Your task to perform on an android device: turn on location history Image 0: 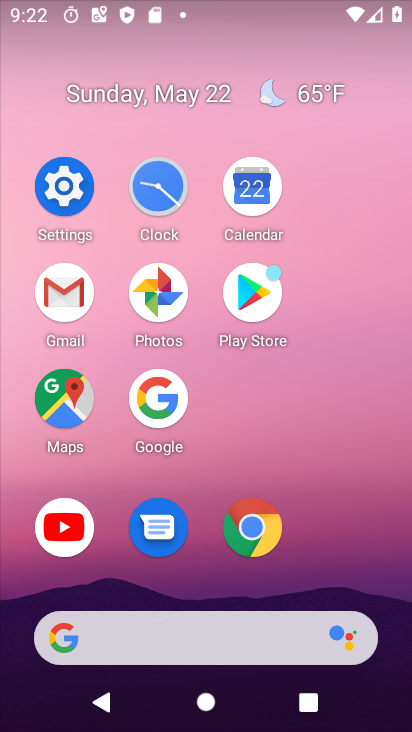
Step 0: click (64, 198)
Your task to perform on an android device: turn on location history Image 1: 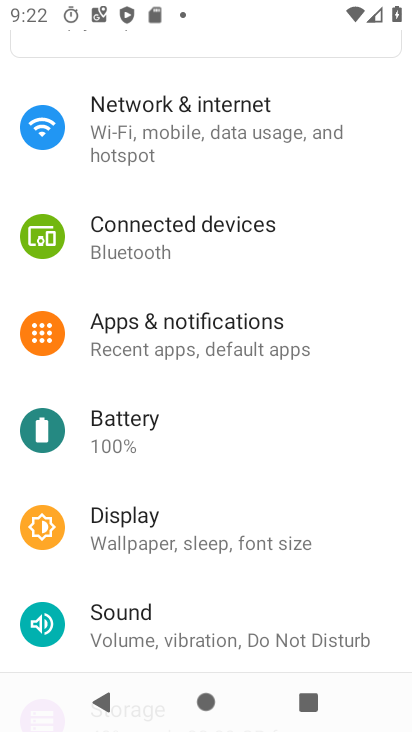
Step 1: drag from (321, 580) to (304, 220)
Your task to perform on an android device: turn on location history Image 2: 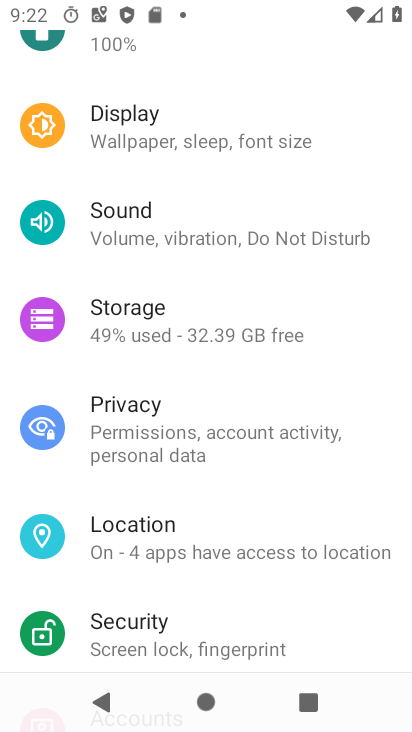
Step 2: click (293, 557)
Your task to perform on an android device: turn on location history Image 3: 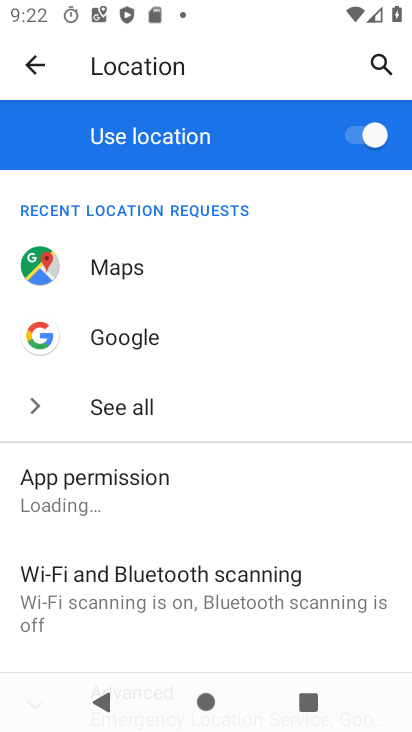
Step 3: drag from (348, 538) to (307, 200)
Your task to perform on an android device: turn on location history Image 4: 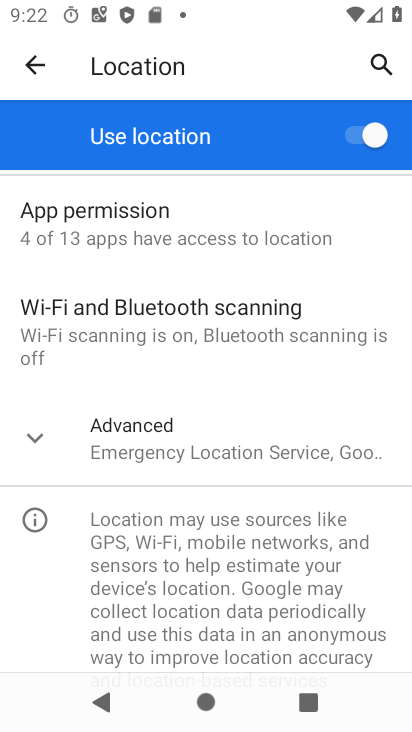
Step 4: click (261, 454)
Your task to perform on an android device: turn on location history Image 5: 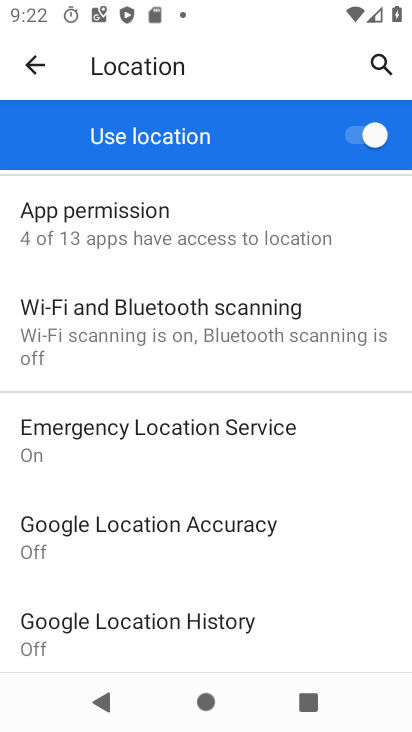
Step 5: click (230, 609)
Your task to perform on an android device: turn on location history Image 6: 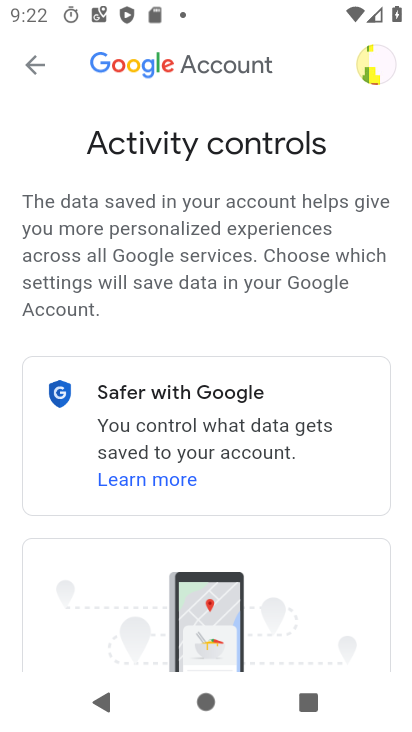
Step 6: task complete